Your task to perform on an android device: What's the weather going to be this weekend? Image 0: 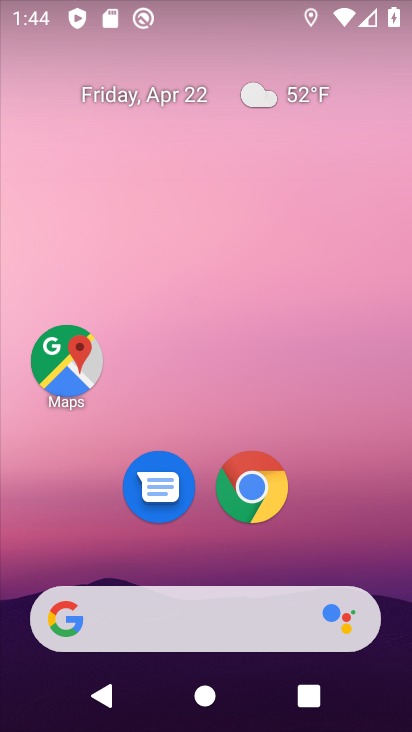
Step 0: click (273, 89)
Your task to perform on an android device: What's the weather going to be this weekend? Image 1: 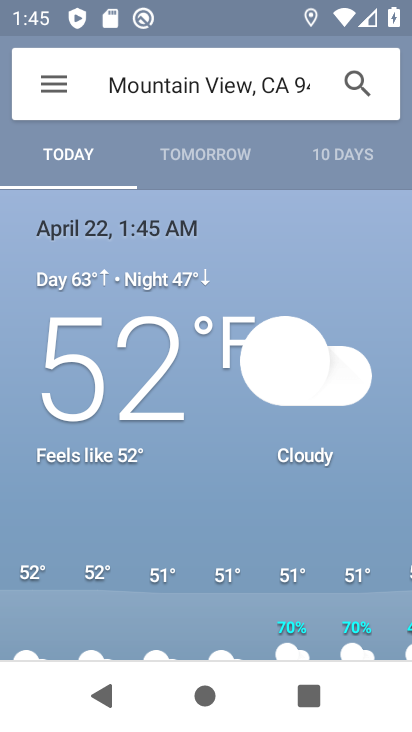
Step 1: click (327, 156)
Your task to perform on an android device: What's the weather going to be this weekend? Image 2: 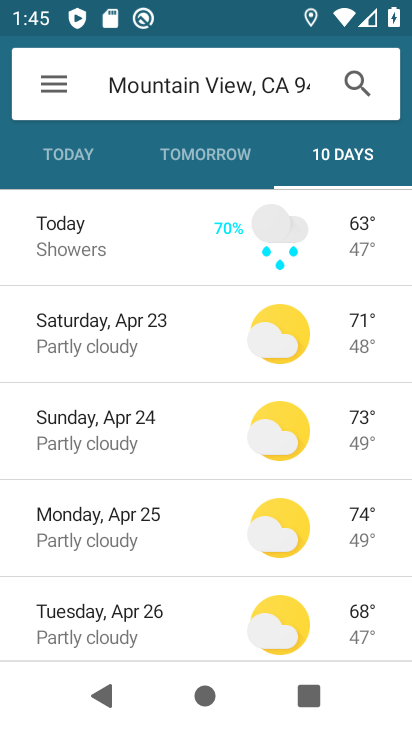
Step 2: task complete